Your task to perform on an android device: Open sound settings Image 0: 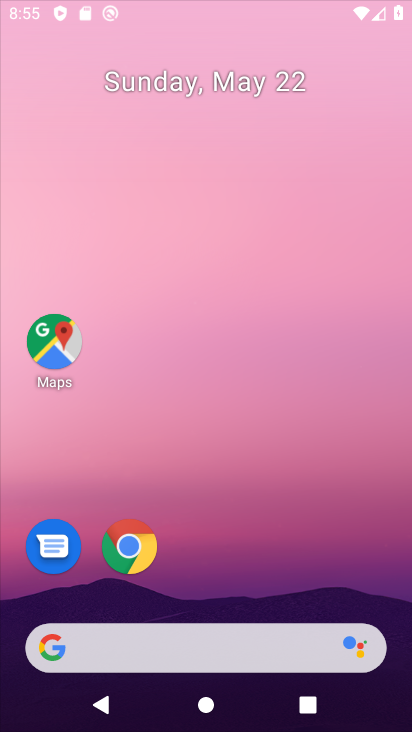
Step 0: click (259, 0)
Your task to perform on an android device: Open sound settings Image 1: 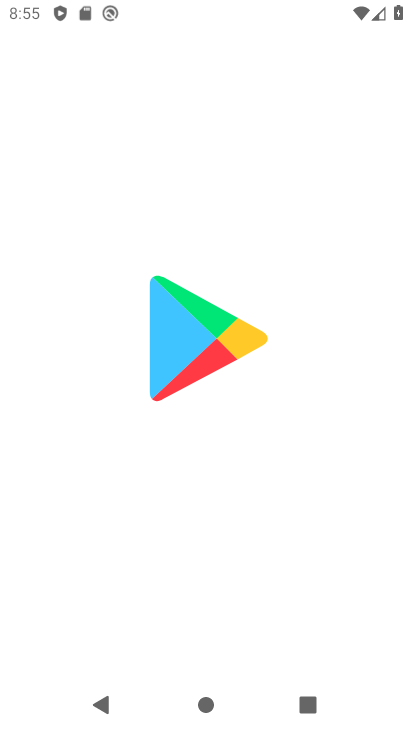
Step 1: drag from (205, 607) to (315, 71)
Your task to perform on an android device: Open sound settings Image 2: 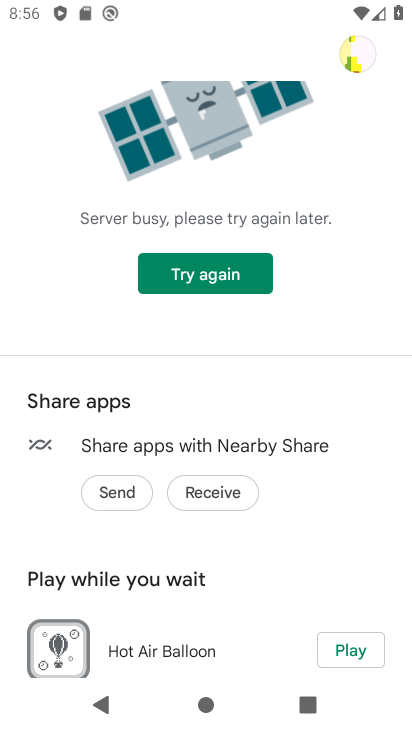
Step 2: press home button
Your task to perform on an android device: Open sound settings Image 3: 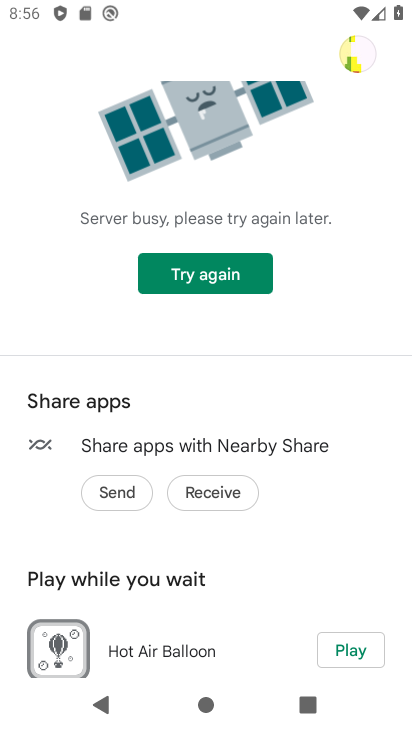
Step 3: press home button
Your task to perform on an android device: Open sound settings Image 4: 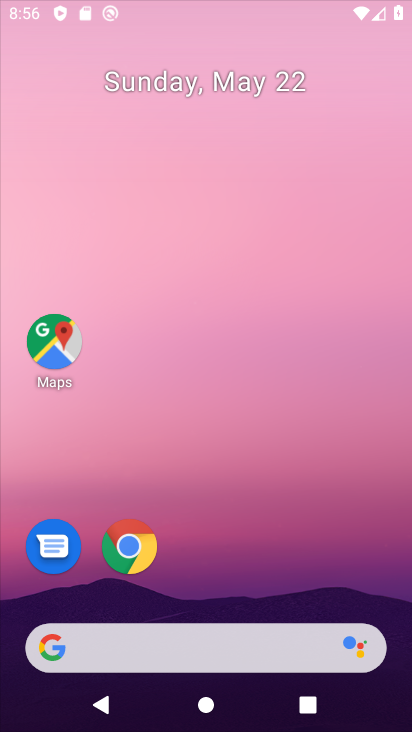
Step 4: press home button
Your task to perform on an android device: Open sound settings Image 5: 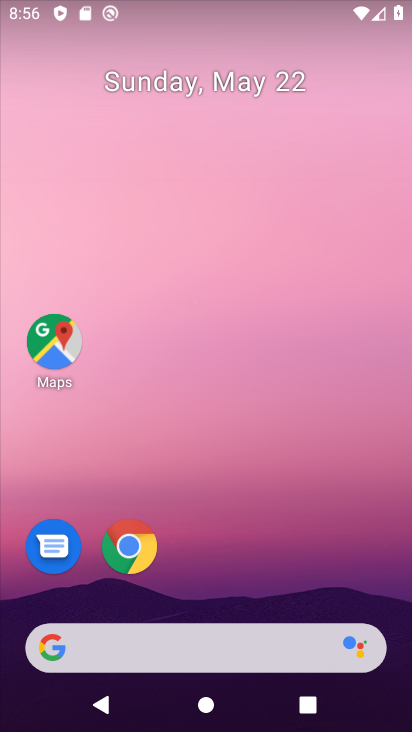
Step 5: drag from (209, 557) to (272, 95)
Your task to perform on an android device: Open sound settings Image 6: 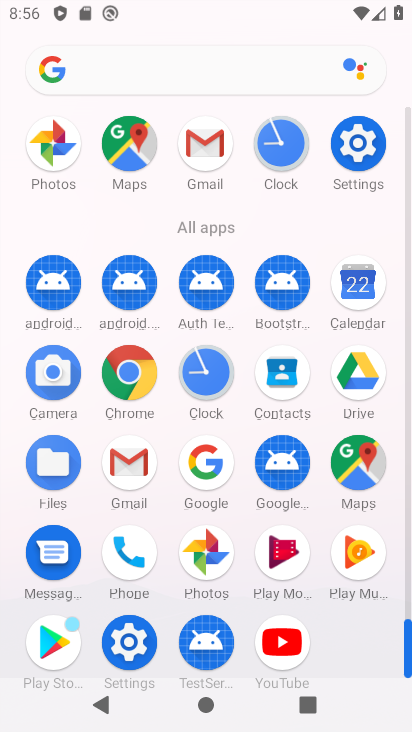
Step 6: click (360, 161)
Your task to perform on an android device: Open sound settings Image 7: 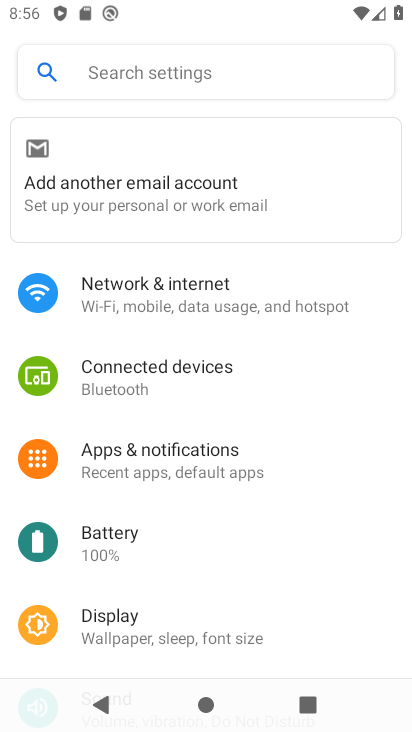
Step 7: drag from (219, 586) to (265, 73)
Your task to perform on an android device: Open sound settings Image 8: 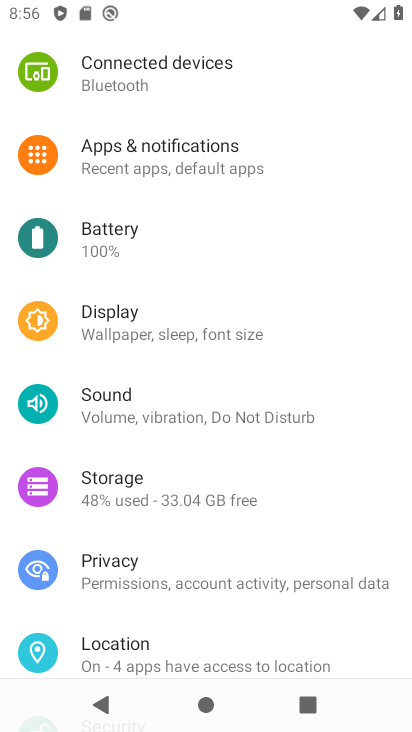
Step 8: drag from (223, 618) to (256, 225)
Your task to perform on an android device: Open sound settings Image 9: 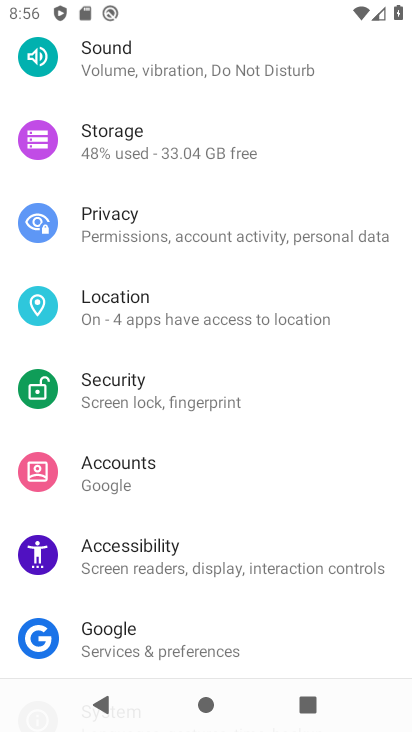
Step 9: click (120, 84)
Your task to perform on an android device: Open sound settings Image 10: 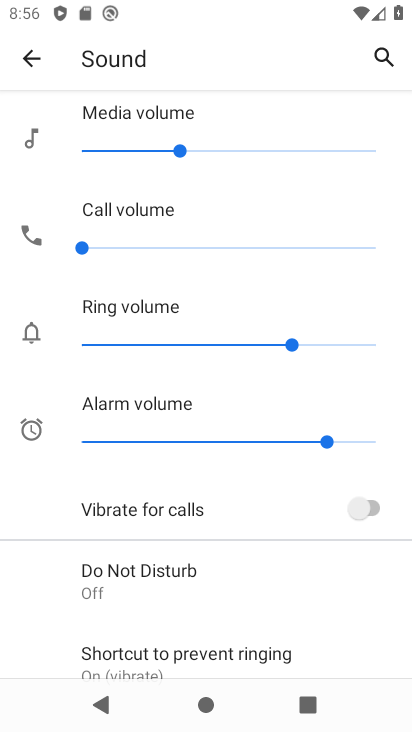
Step 10: task complete